Your task to perform on an android device: open a bookmark in the chrome app Image 0: 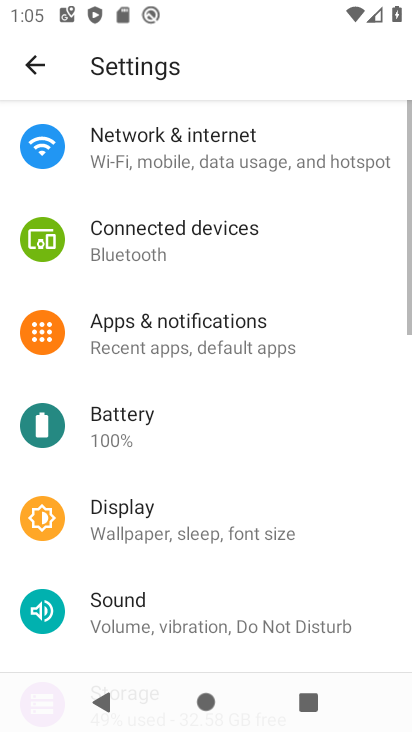
Step 0: press home button
Your task to perform on an android device: open a bookmark in the chrome app Image 1: 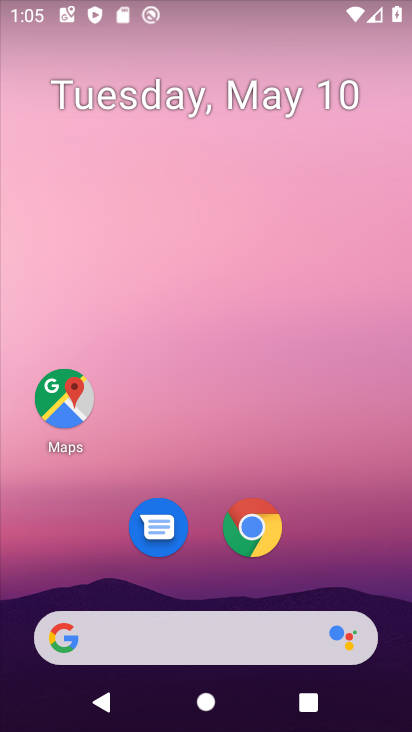
Step 1: click (252, 531)
Your task to perform on an android device: open a bookmark in the chrome app Image 2: 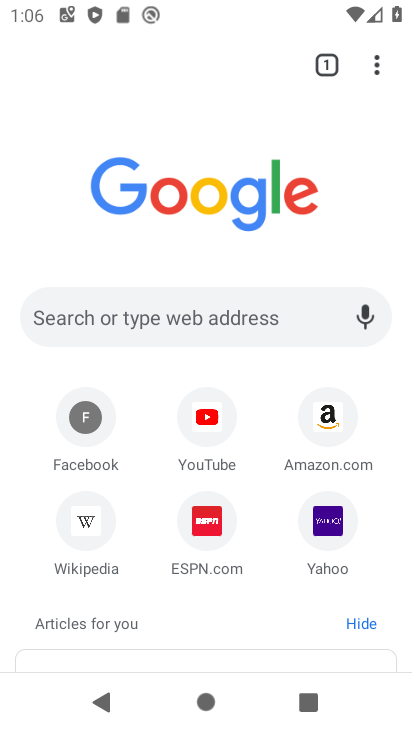
Step 2: click (377, 59)
Your task to perform on an android device: open a bookmark in the chrome app Image 3: 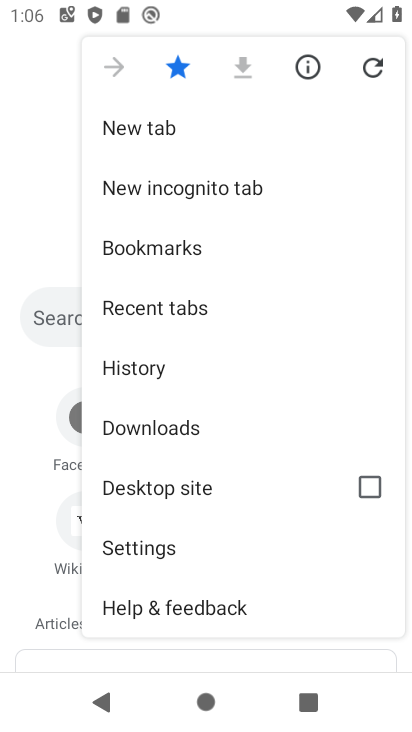
Step 3: click (149, 255)
Your task to perform on an android device: open a bookmark in the chrome app Image 4: 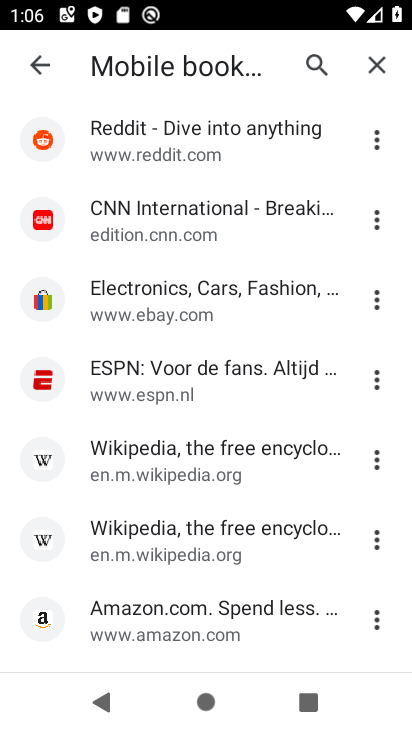
Step 4: task complete